Your task to perform on an android device: add a label to a message in the gmail app Image 0: 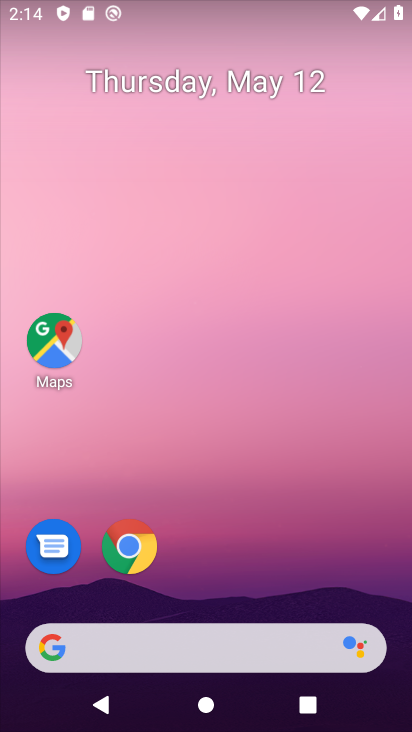
Step 0: drag from (191, 581) to (395, 42)
Your task to perform on an android device: add a label to a message in the gmail app Image 1: 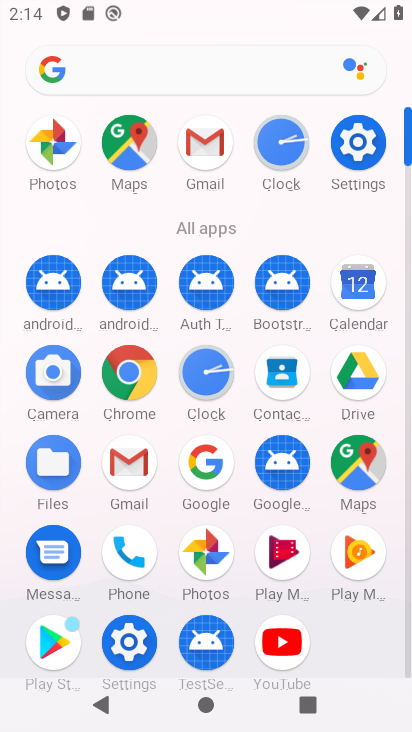
Step 1: click (117, 463)
Your task to perform on an android device: add a label to a message in the gmail app Image 2: 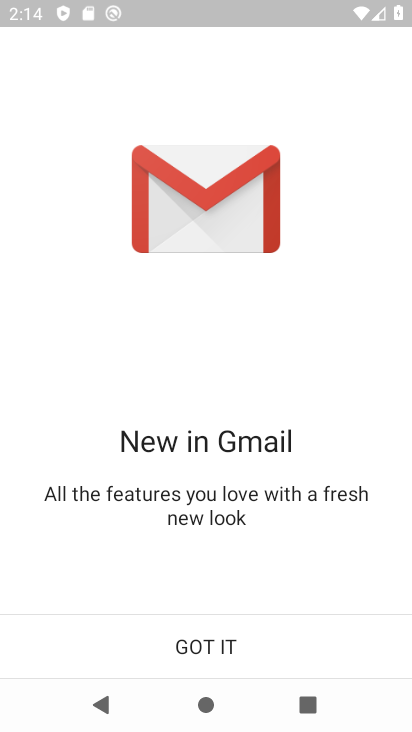
Step 2: click (197, 645)
Your task to perform on an android device: add a label to a message in the gmail app Image 3: 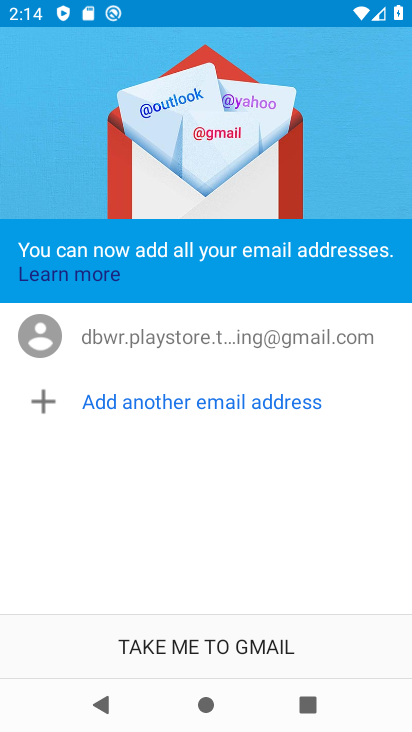
Step 3: click (267, 649)
Your task to perform on an android device: add a label to a message in the gmail app Image 4: 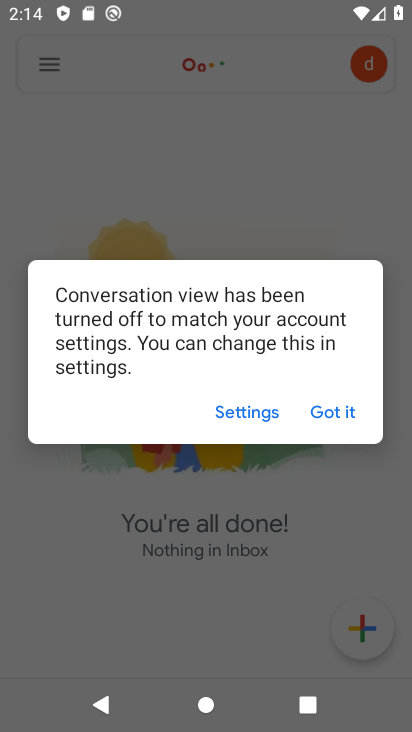
Step 4: click (339, 420)
Your task to perform on an android device: add a label to a message in the gmail app Image 5: 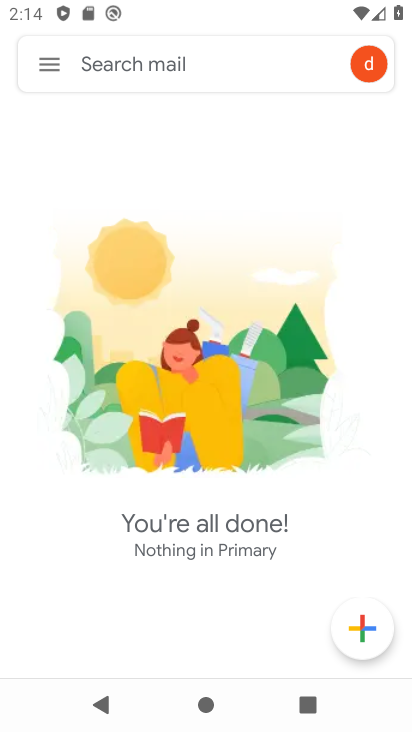
Step 5: click (63, 67)
Your task to perform on an android device: add a label to a message in the gmail app Image 6: 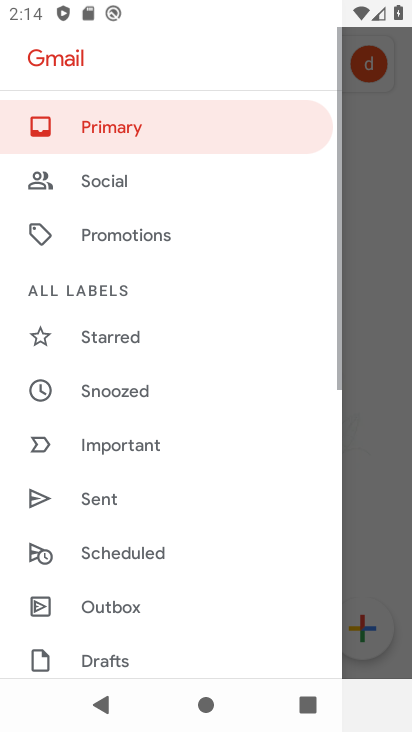
Step 6: drag from (188, 623) to (296, 219)
Your task to perform on an android device: add a label to a message in the gmail app Image 7: 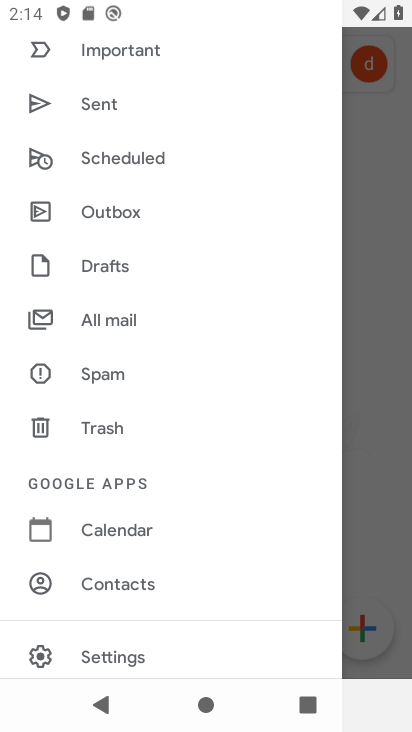
Step 7: click (119, 317)
Your task to perform on an android device: add a label to a message in the gmail app Image 8: 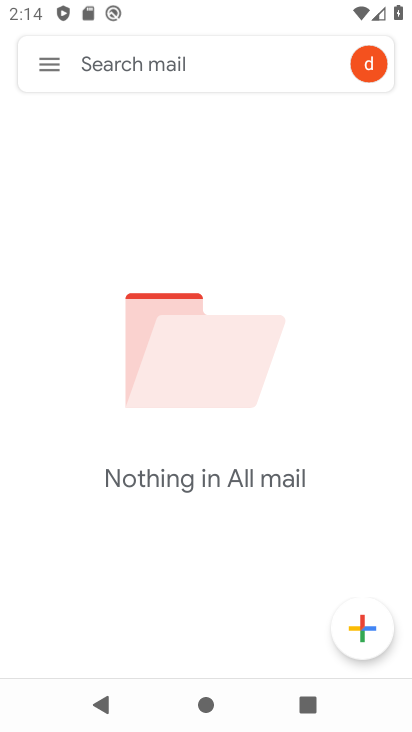
Step 8: task complete